Your task to perform on an android device: Go to settings Image 0: 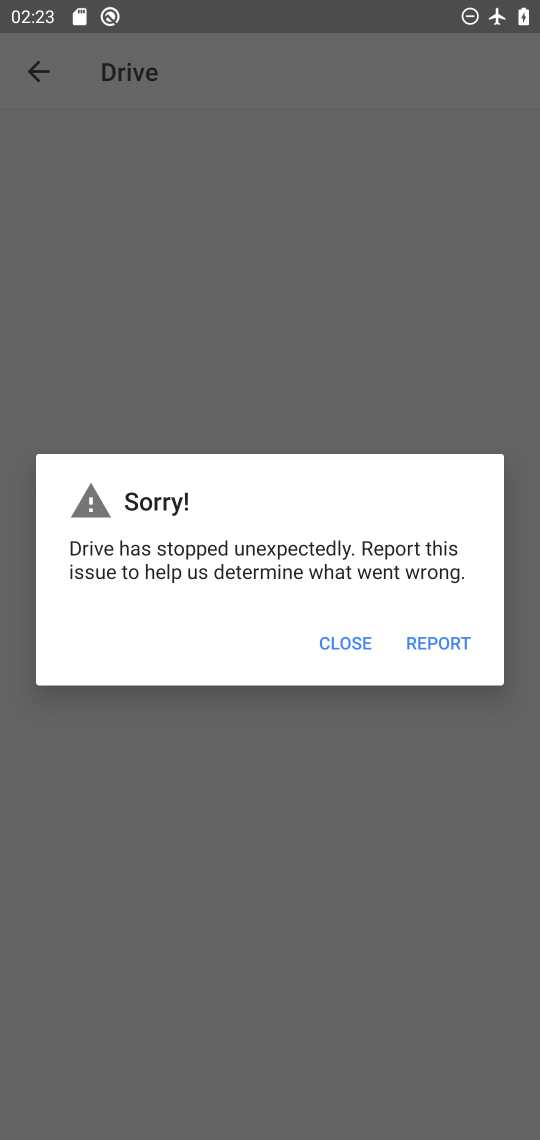
Step 0: press back button
Your task to perform on an android device: Go to settings Image 1: 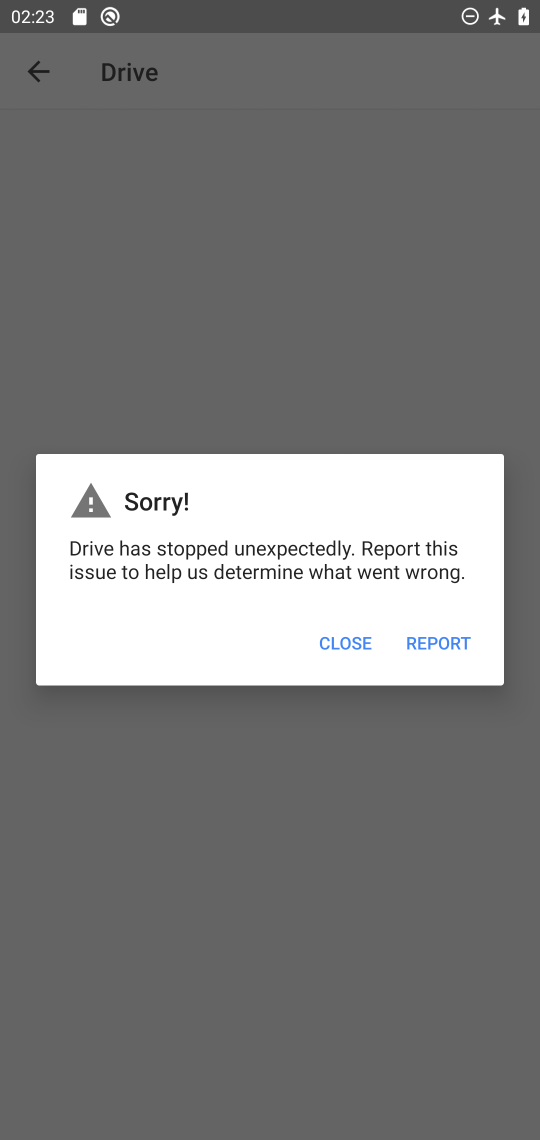
Step 1: press home button
Your task to perform on an android device: Go to settings Image 2: 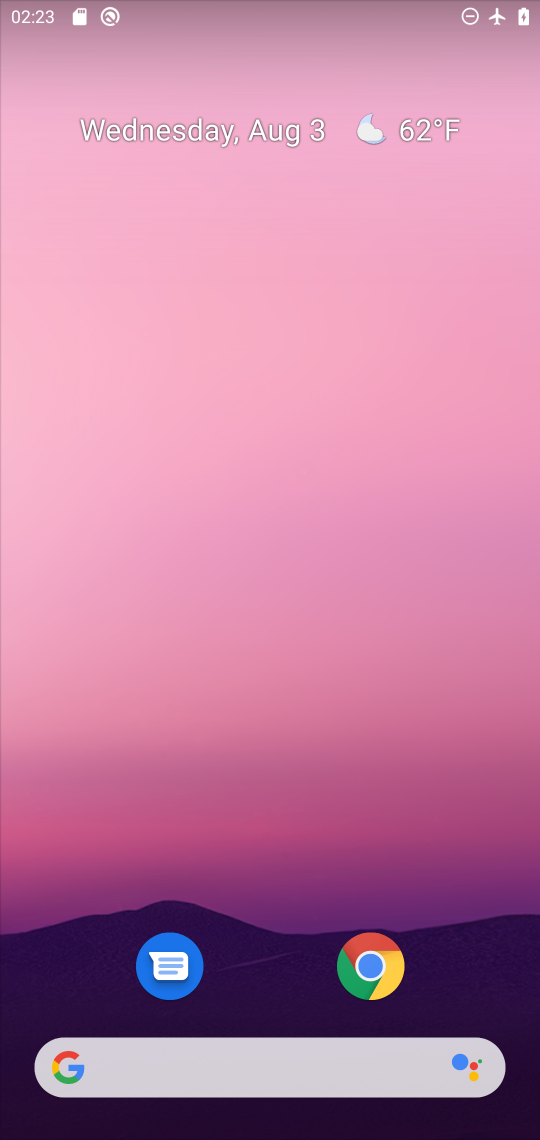
Step 2: drag from (269, 957) to (304, 309)
Your task to perform on an android device: Go to settings Image 3: 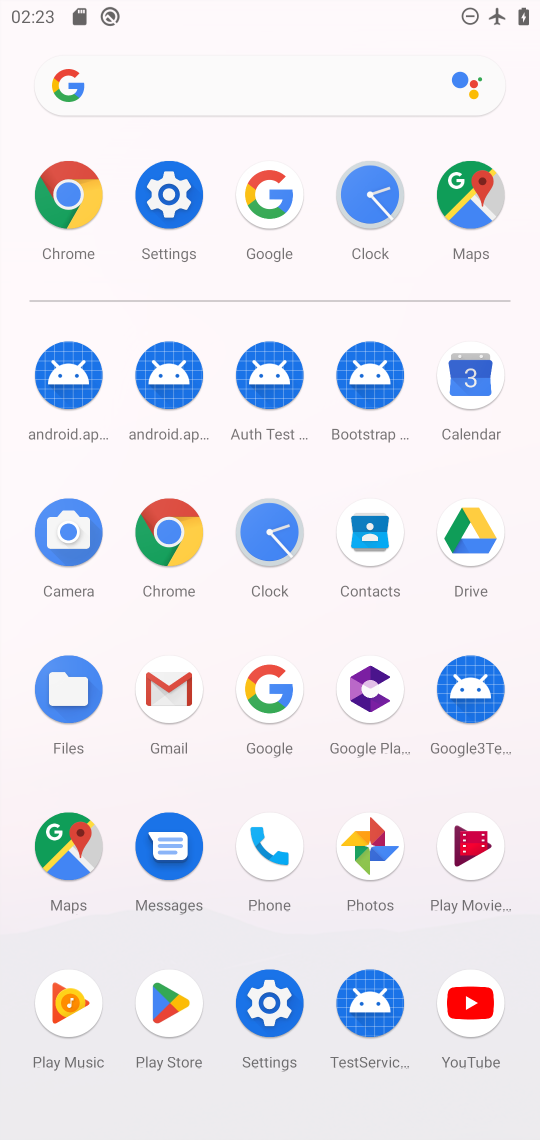
Step 3: click (175, 206)
Your task to perform on an android device: Go to settings Image 4: 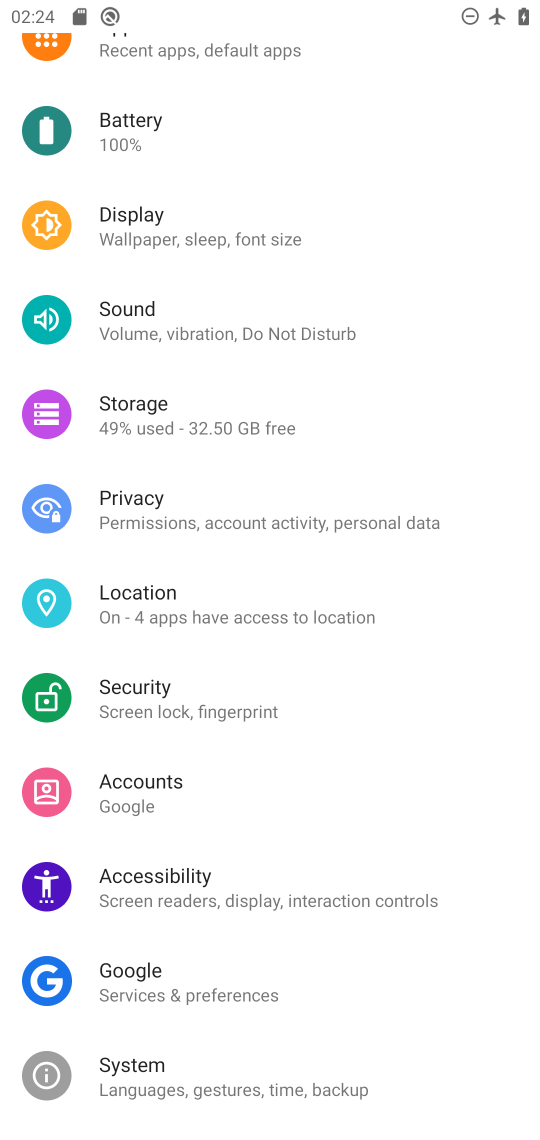
Step 4: task complete